Your task to perform on an android device: Go to calendar. Show me events next week Image 0: 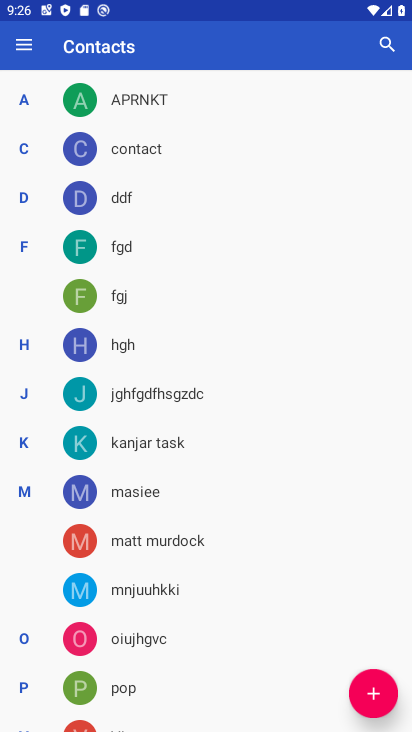
Step 0: press home button
Your task to perform on an android device: Go to calendar. Show me events next week Image 1: 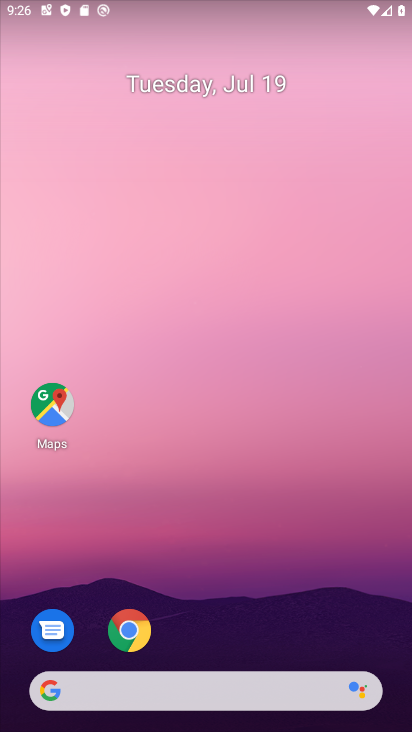
Step 1: drag from (225, 625) to (227, 125)
Your task to perform on an android device: Go to calendar. Show me events next week Image 2: 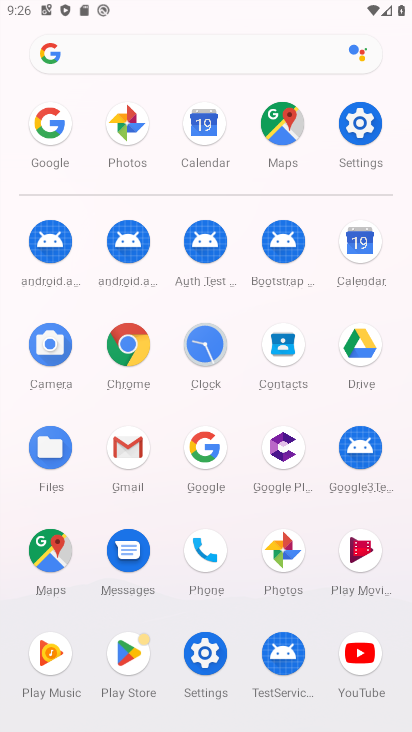
Step 2: click (361, 244)
Your task to perform on an android device: Go to calendar. Show me events next week Image 3: 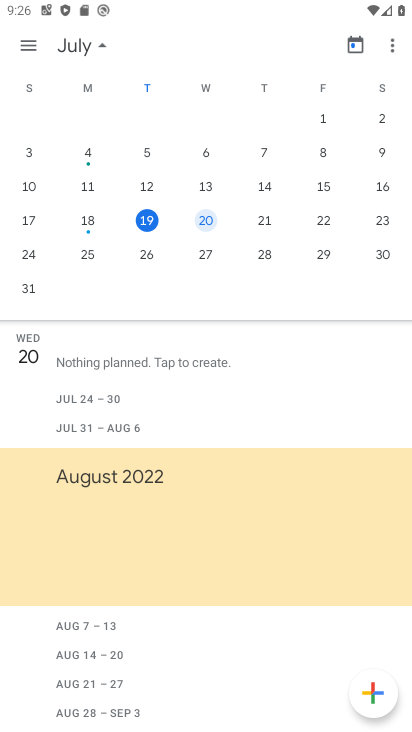
Step 3: click (150, 254)
Your task to perform on an android device: Go to calendar. Show me events next week Image 4: 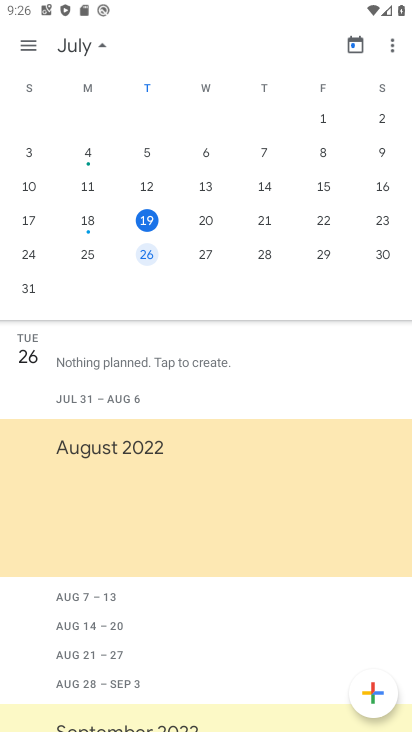
Step 4: task complete